Your task to perform on an android device: turn off airplane mode Image 0: 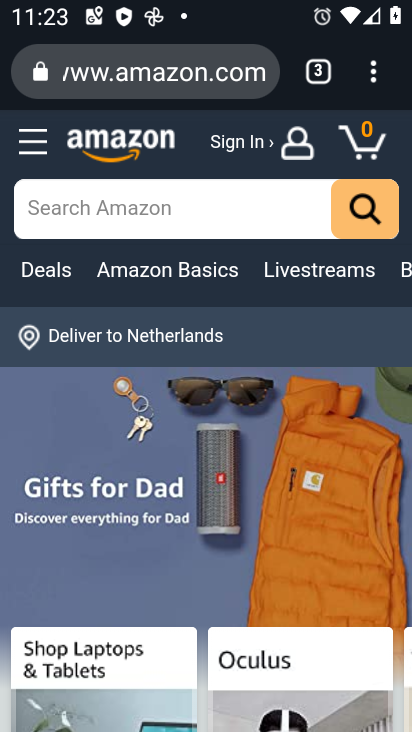
Step 0: press home button
Your task to perform on an android device: turn off airplane mode Image 1: 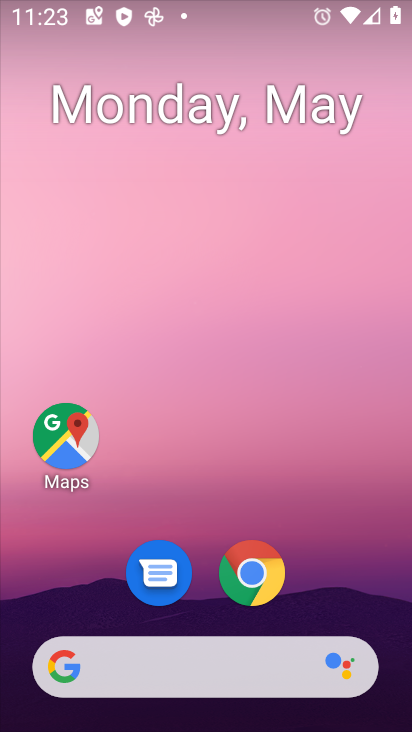
Step 1: drag from (390, 554) to (292, 59)
Your task to perform on an android device: turn off airplane mode Image 2: 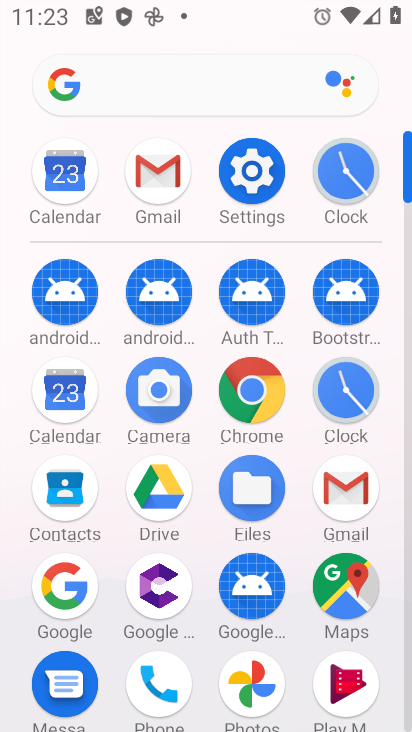
Step 2: click (237, 180)
Your task to perform on an android device: turn off airplane mode Image 3: 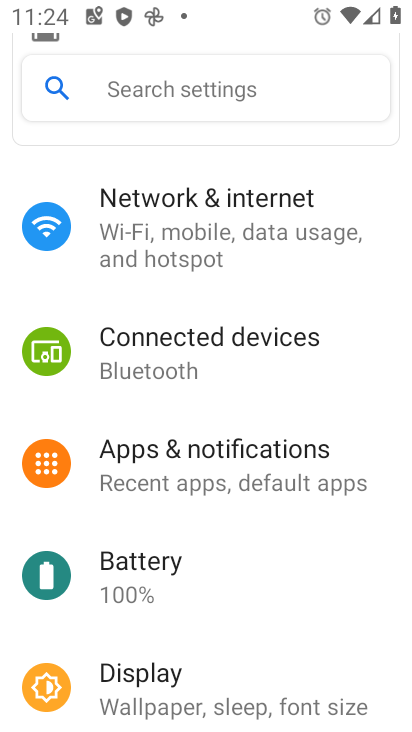
Step 3: click (259, 230)
Your task to perform on an android device: turn off airplane mode Image 4: 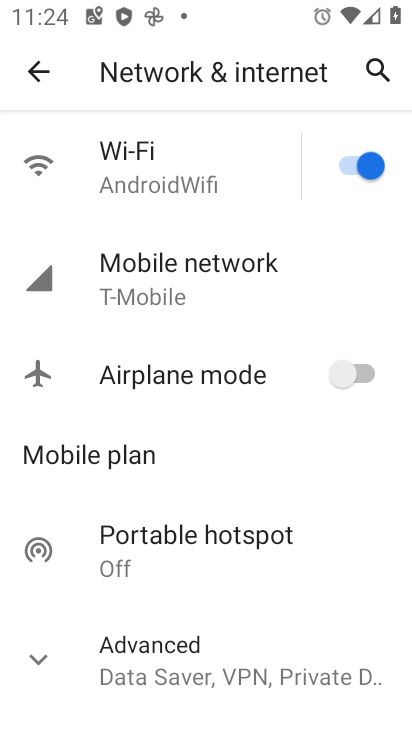
Step 4: task complete